Your task to perform on an android device: move a message to another label in the gmail app Image 0: 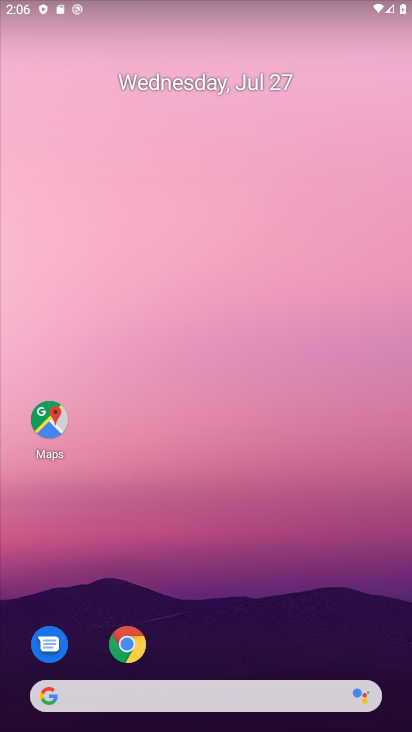
Step 0: drag from (272, 650) to (302, 107)
Your task to perform on an android device: move a message to another label in the gmail app Image 1: 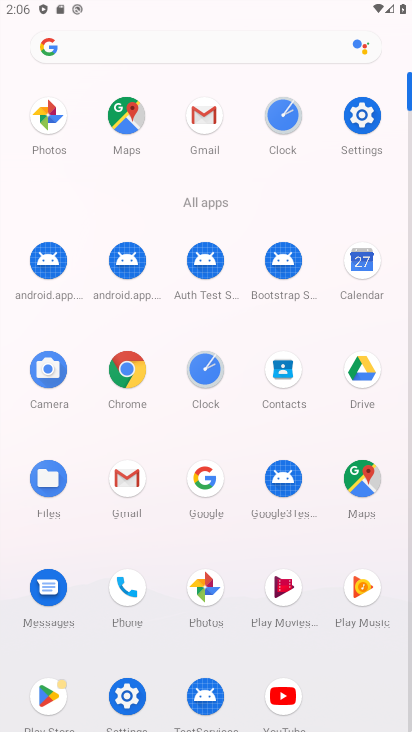
Step 1: click (202, 123)
Your task to perform on an android device: move a message to another label in the gmail app Image 2: 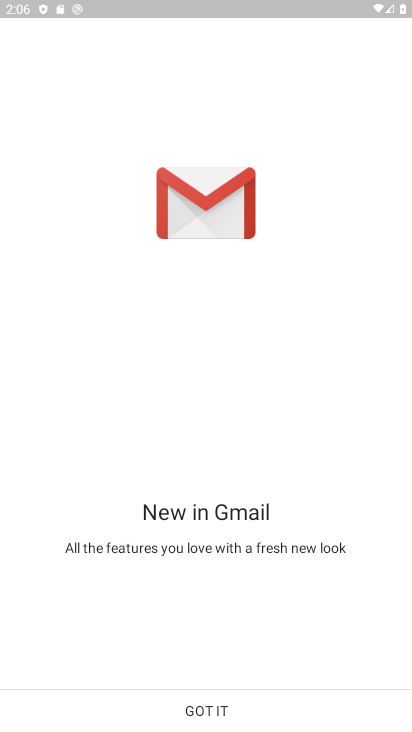
Step 2: click (199, 723)
Your task to perform on an android device: move a message to another label in the gmail app Image 3: 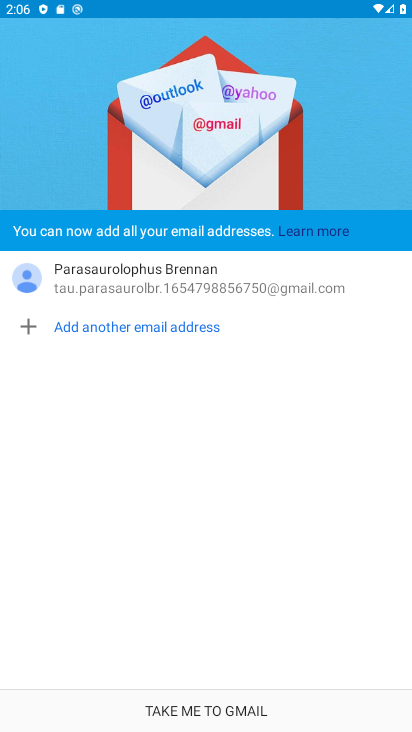
Step 3: click (236, 719)
Your task to perform on an android device: move a message to another label in the gmail app Image 4: 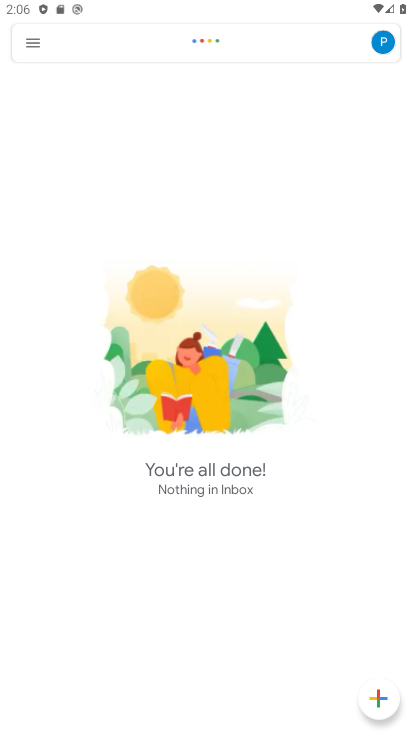
Step 4: task complete